Your task to perform on an android device: Find coffee shops on Maps Image 0: 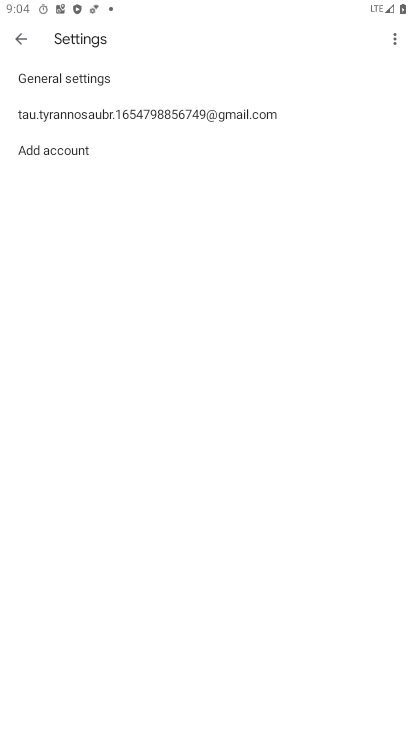
Step 0: press home button
Your task to perform on an android device: Find coffee shops on Maps Image 1: 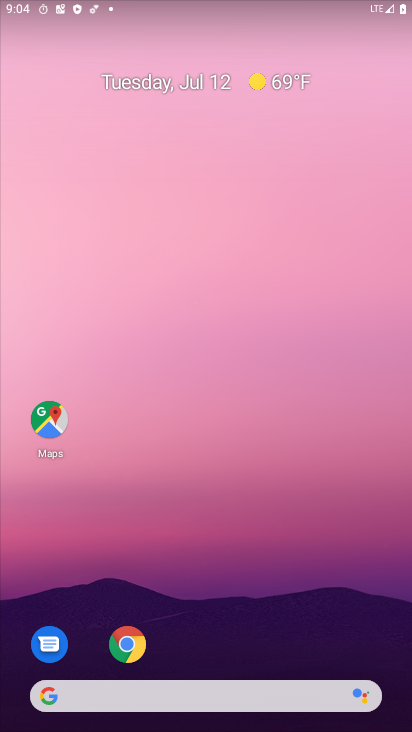
Step 1: click (48, 416)
Your task to perform on an android device: Find coffee shops on Maps Image 2: 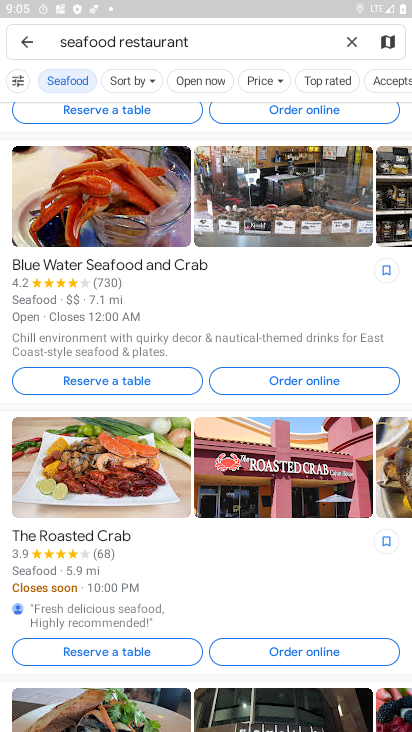
Step 2: click (347, 32)
Your task to perform on an android device: Find coffee shops on Maps Image 3: 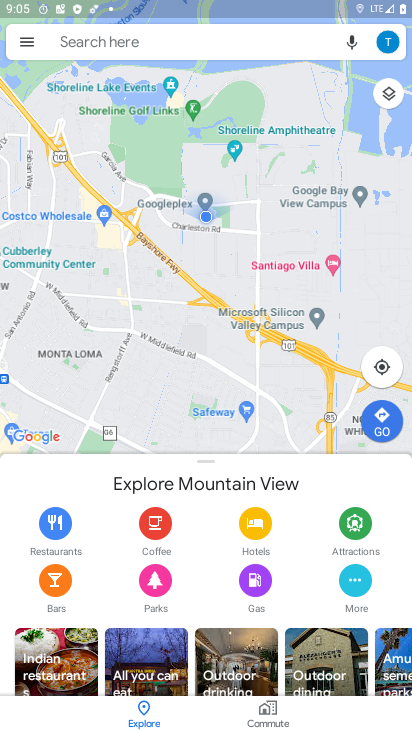
Step 3: click (115, 33)
Your task to perform on an android device: Find coffee shops on Maps Image 4: 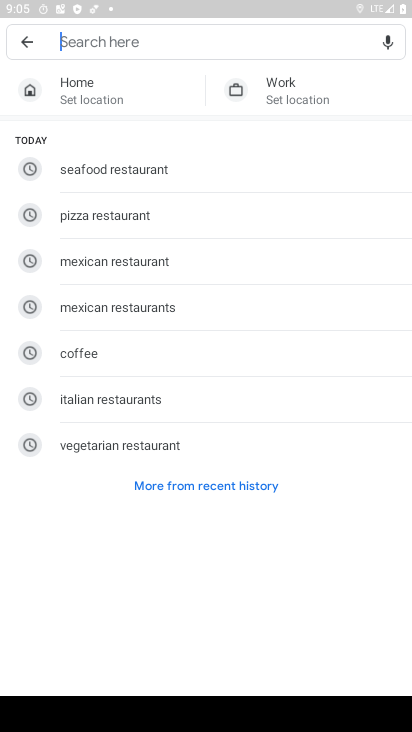
Step 4: click (98, 345)
Your task to perform on an android device: Find coffee shops on Maps Image 5: 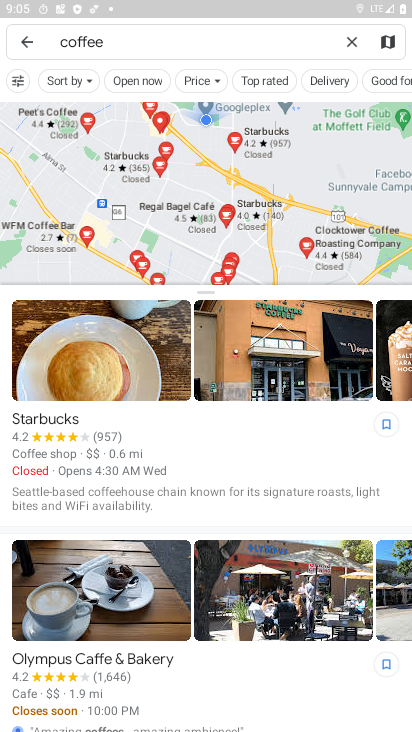
Step 5: task complete